Your task to perform on an android device: change the upload size in google photos Image 0: 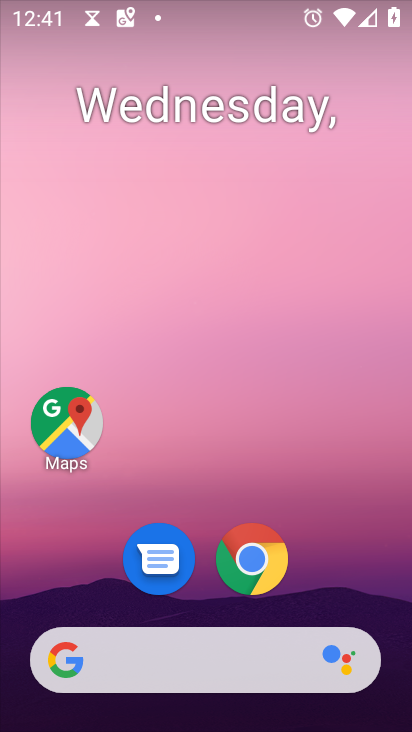
Step 0: drag from (337, 558) to (376, 62)
Your task to perform on an android device: change the upload size in google photos Image 1: 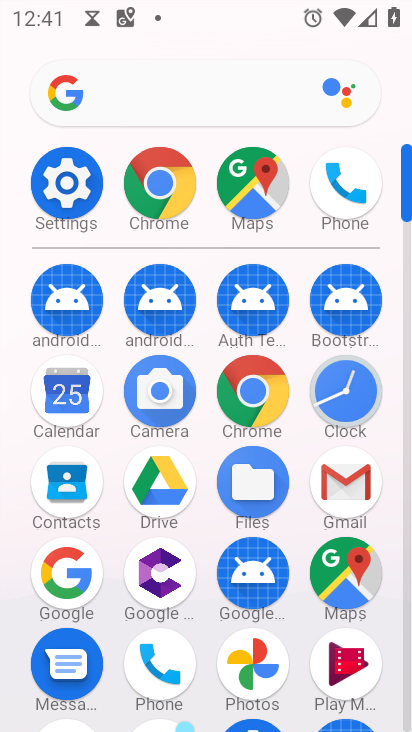
Step 1: click (253, 657)
Your task to perform on an android device: change the upload size in google photos Image 2: 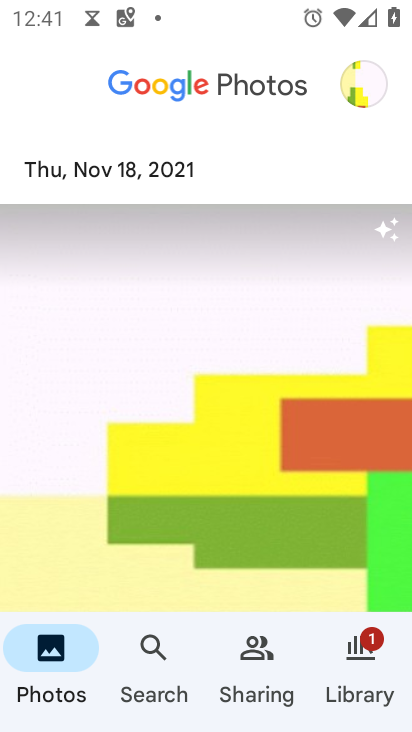
Step 2: drag from (178, 263) to (205, 617)
Your task to perform on an android device: change the upload size in google photos Image 3: 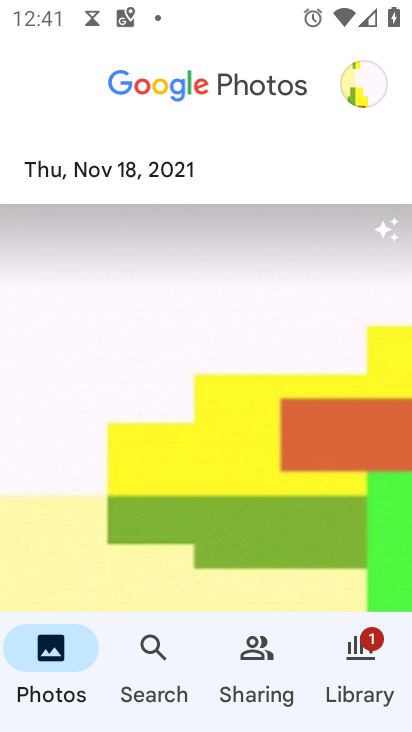
Step 3: click (367, 88)
Your task to perform on an android device: change the upload size in google photos Image 4: 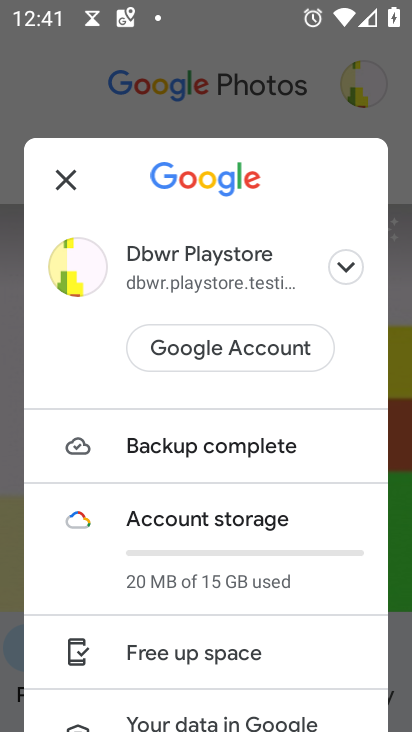
Step 4: click (184, 463)
Your task to perform on an android device: change the upload size in google photos Image 5: 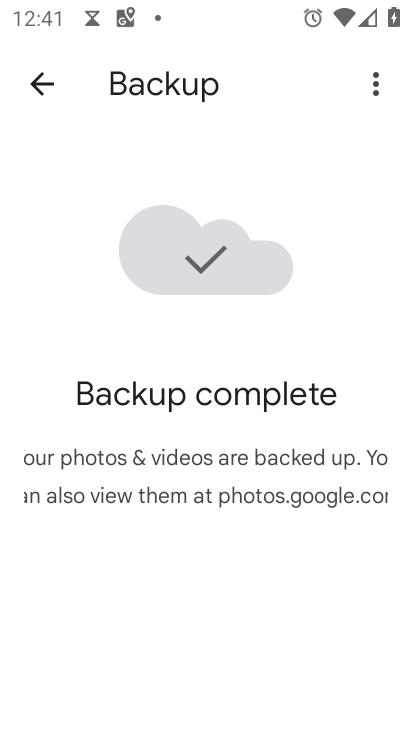
Step 5: task complete